Your task to perform on an android device: turn on translation in the chrome app Image 0: 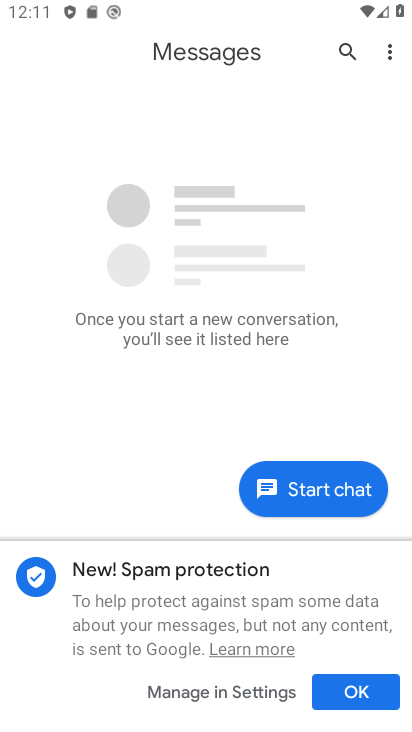
Step 0: press back button
Your task to perform on an android device: turn on translation in the chrome app Image 1: 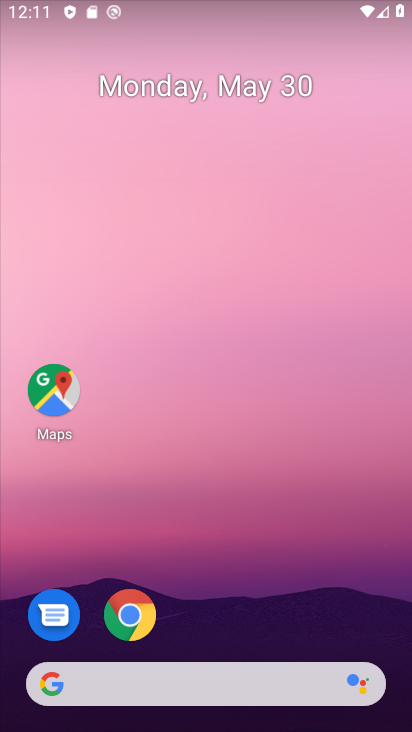
Step 1: click (118, 605)
Your task to perform on an android device: turn on translation in the chrome app Image 2: 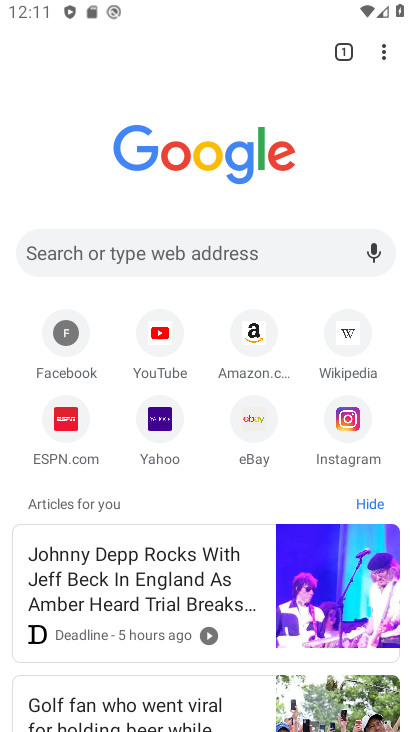
Step 2: drag from (375, 50) to (207, 437)
Your task to perform on an android device: turn on translation in the chrome app Image 3: 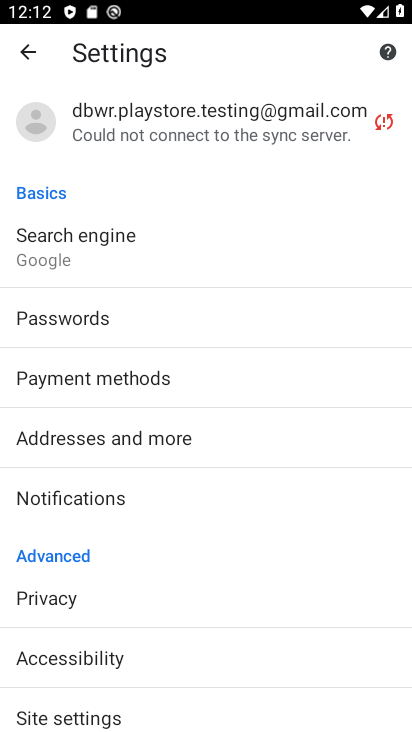
Step 3: drag from (87, 590) to (157, 218)
Your task to perform on an android device: turn on translation in the chrome app Image 4: 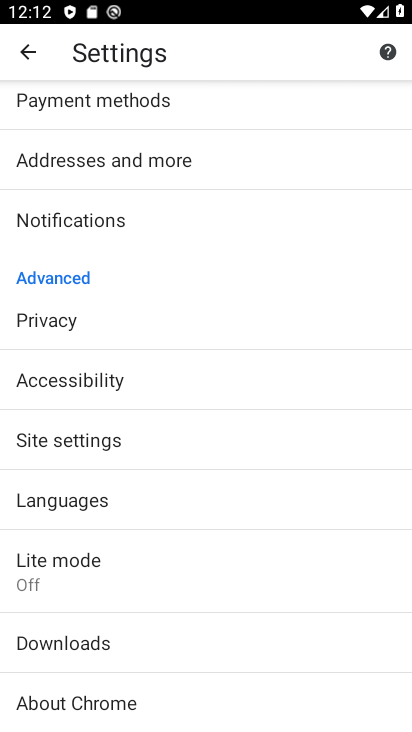
Step 4: click (63, 500)
Your task to perform on an android device: turn on translation in the chrome app Image 5: 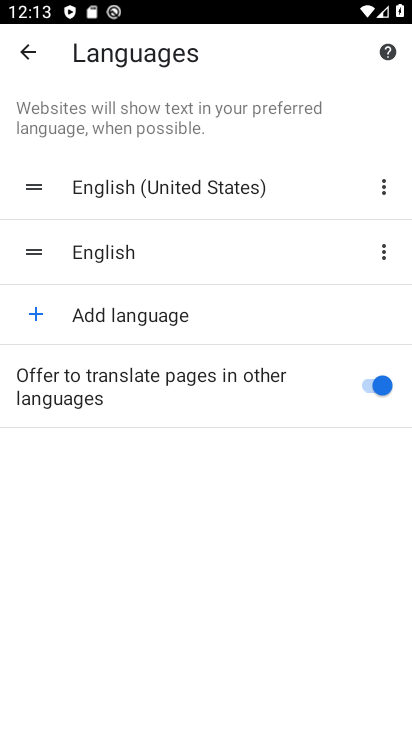
Step 5: task complete